Your task to perform on an android device: change alarm snooze length Image 0: 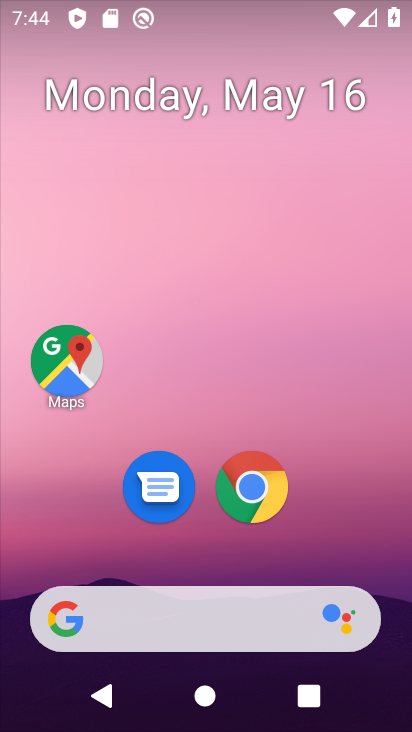
Step 0: drag from (353, 527) to (340, 80)
Your task to perform on an android device: change alarm snooze length Image 1: 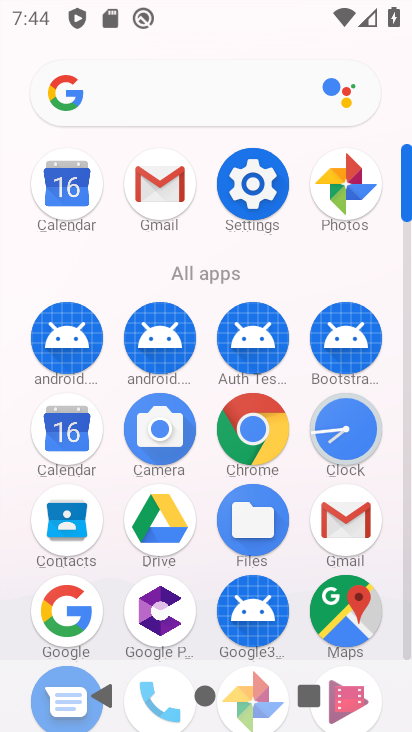
Step 1: click (343, 433)
Your task to perform on an android device: change alarm snooze length Image 2: 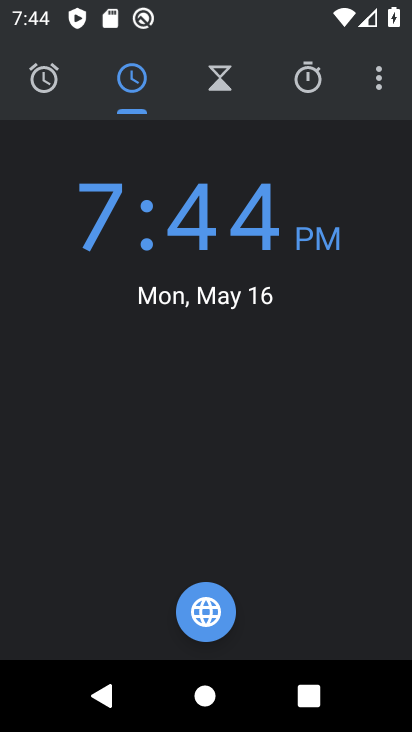
Step 2: click (377, 85)
Your task to perform on an android device: change alarm snooze length Image 3: 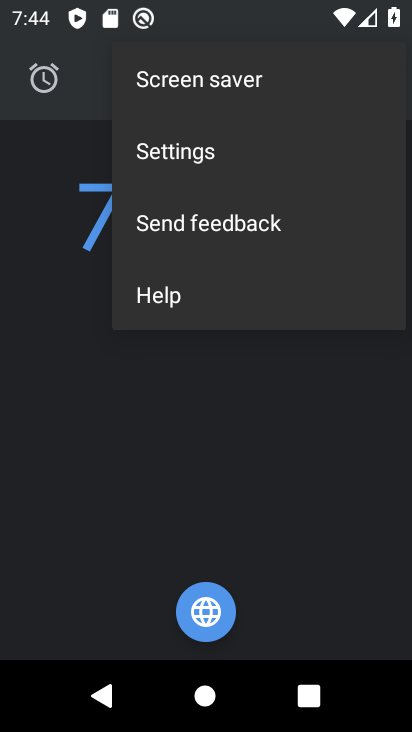
Step 3: click (274, 148)
Your task to perform on an android device: change alarm snooze length Image 4: 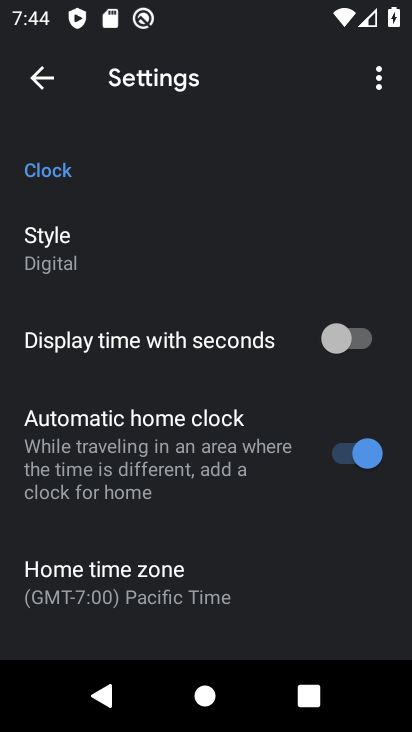
Step 4: drag from (192, 557) to (179, 179)
Your task to perform on an android device: change alarm snooze length Image 5: 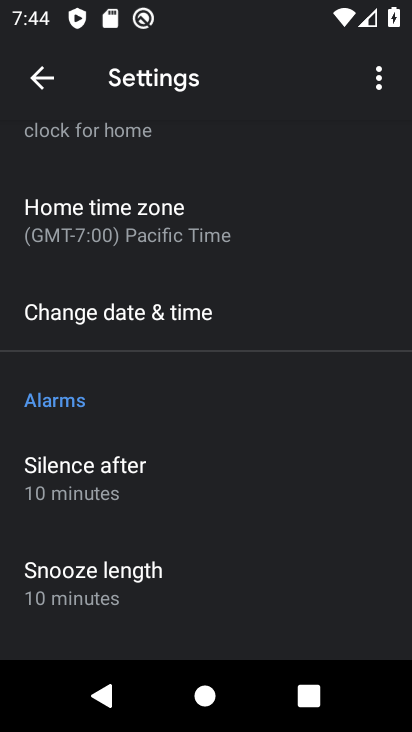
Step 5: click (136, 581)
Your task to perform on an android device: change alarm snooze length Image 6: 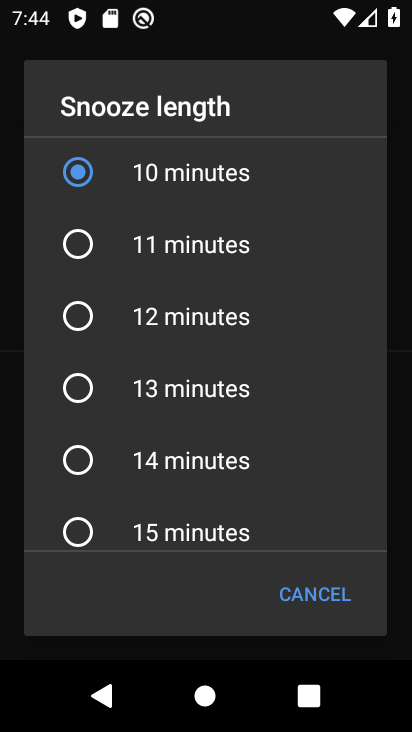
Step 6: click (84, 316)
Your task to perform on an android device: change alarm snooze length Image 7: 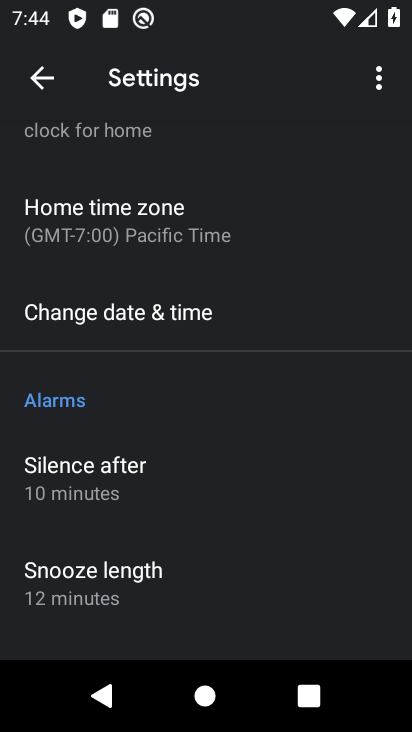
Step 7: task complete